Your task to perform on an android device: Go to Wikipedia Image 0: 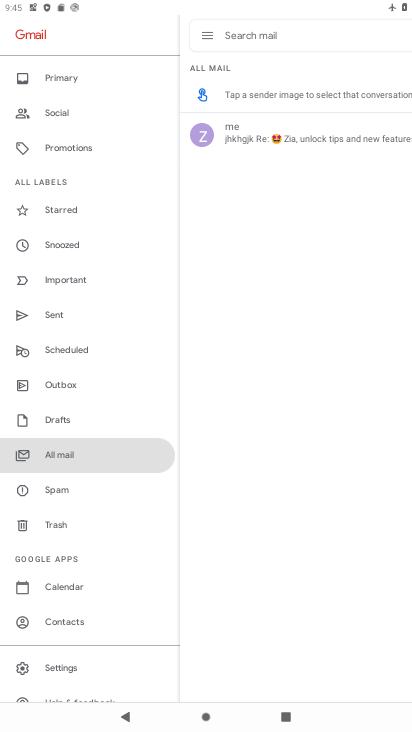
Step 0: press home button
Your task to perform on an android device: Go to Wikipedia Image 1: 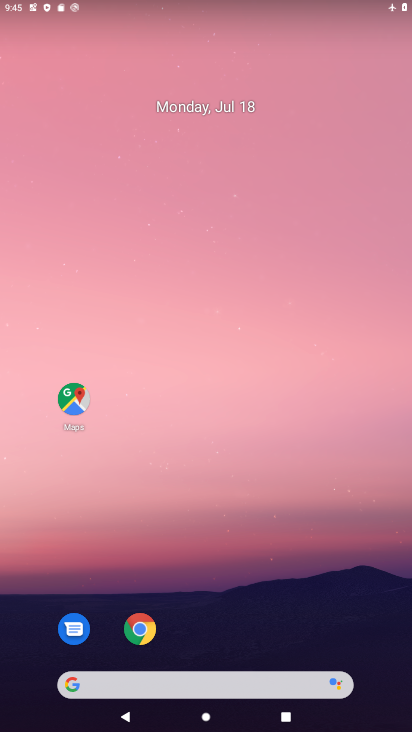
Step 1: drag from (327, 646) to (293, 30)
Your task to perform on an android device: Go to Wikipedia Image 2: 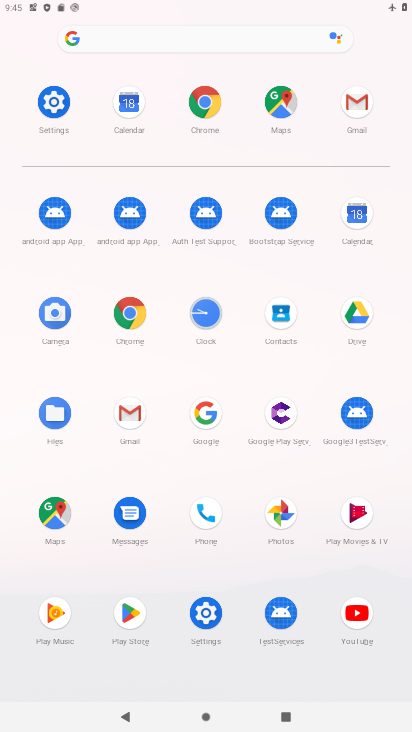
Step 2: click (199, 106)
Your task to perform on an android device: Go to Wikipedia Image 3: 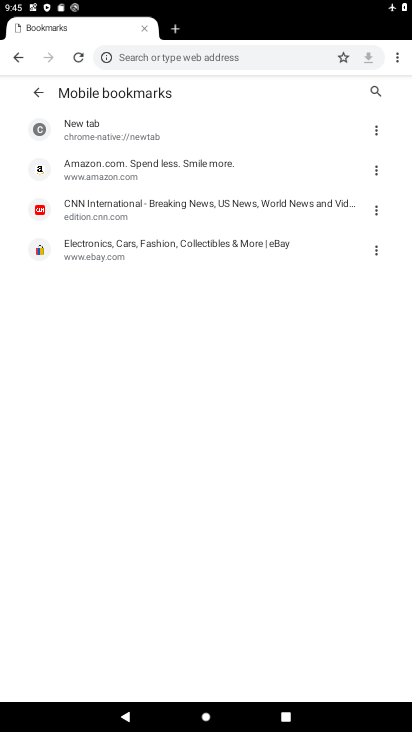
Step 3: click (253, 49)
Your task to perform on an android device: Go to Wikipedia Image 4: 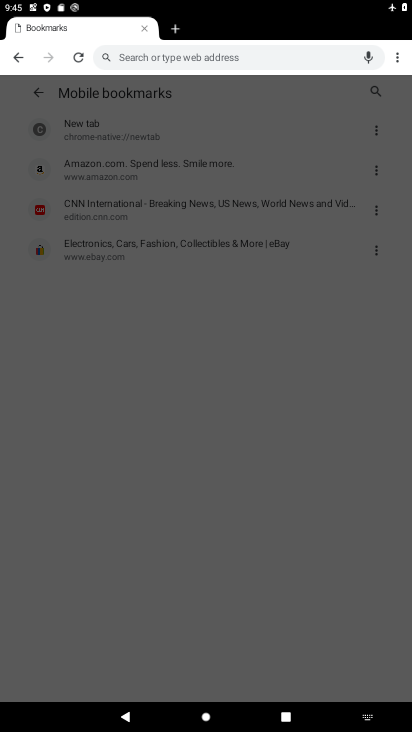
Step 4: click (255, 56)
Your task to perform on an android device: Go to Wikipedia Image 5: 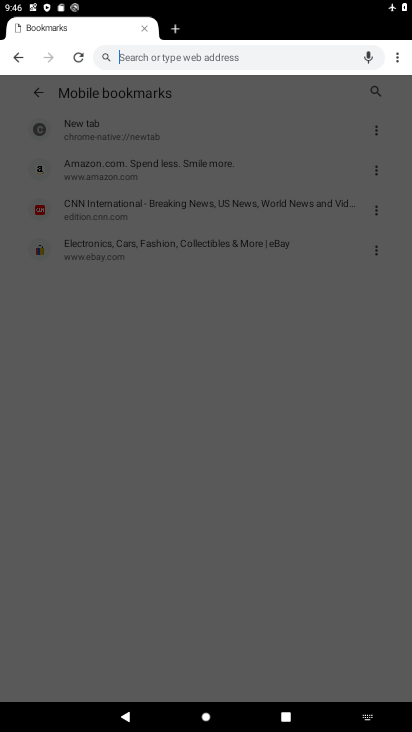
Step 5: type "wikipedia"
Your task to perform on an android device: Go to Wikipedia Image 6: 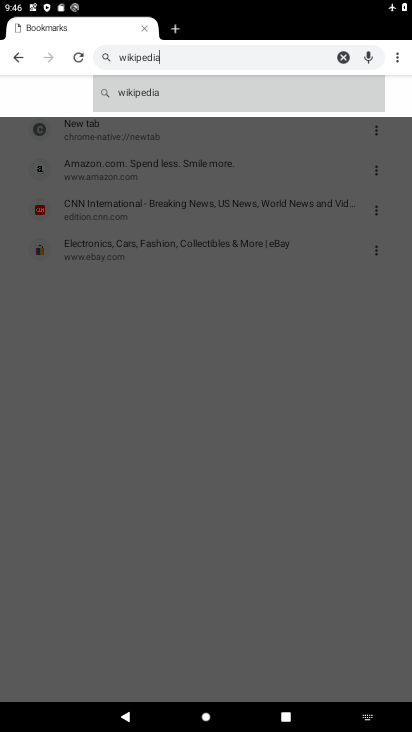
Step 6: click (140, 88)
Your task to perform on an android device: Go to Wikipedia Image 7: 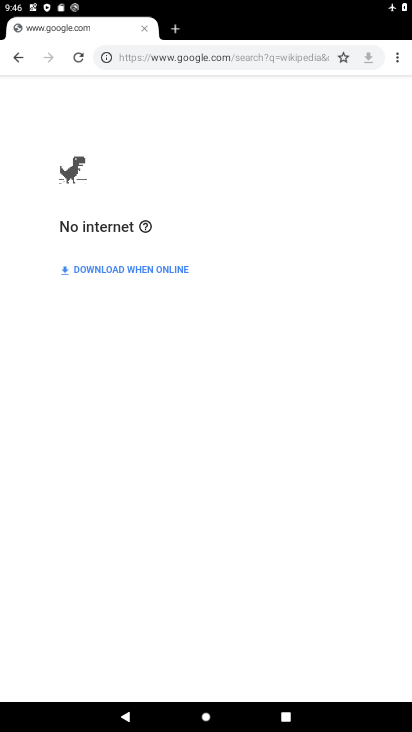
Step 7: task complete